Your task to perform on an android device: change notification settings in the gmail app Image 0: 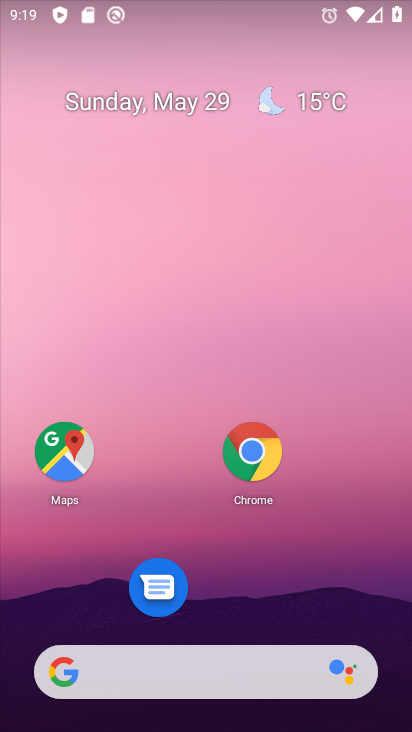
Step 0: drag from (108, 276) to (114, 58)
Your task to perform on an android device: change notification settings in the gmail app Image 1: 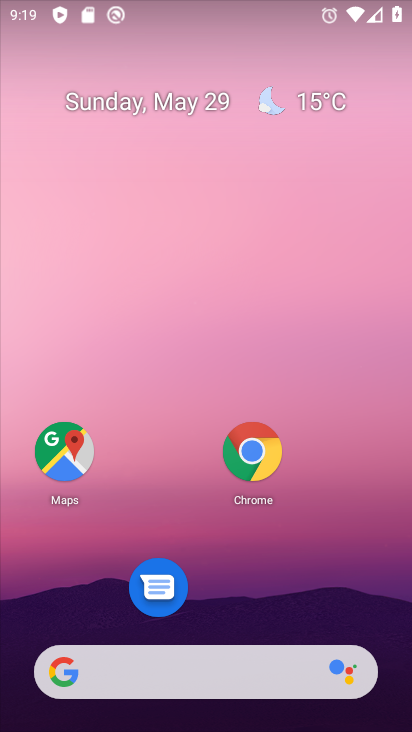
Step 1: drag from (235, 629) to (246, 8)
Your task to perform on an android device: change notification settings in the gmail app Image 2: 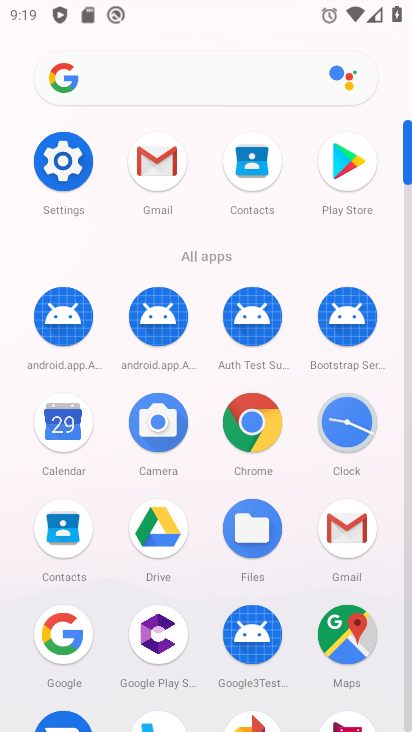
Step 2: click (155, 145)
Your task to perform on an android device: change notification settings in the gmail app Image 3: 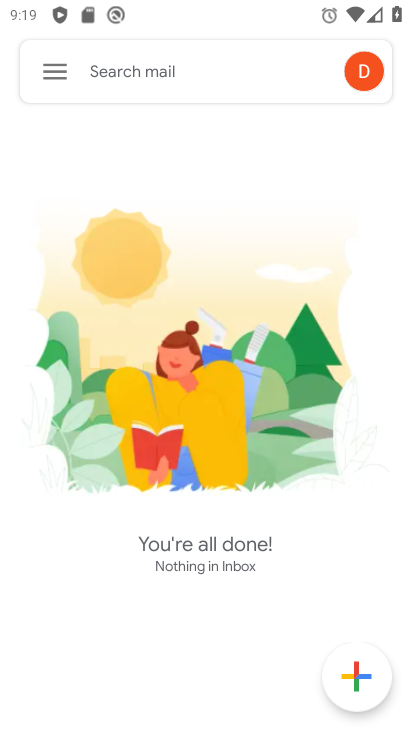
Step 3: click (46, 82)
Your task to perform on an android device: change notification settings in the gmail app Image 4: 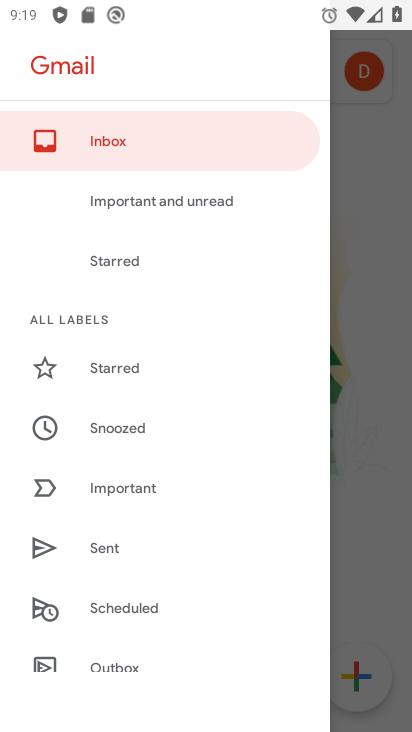
Step 4: drag from (147, 625) to (200, 148)
Your task to perform on an android device: change notification settings in the gmail app Image 5: 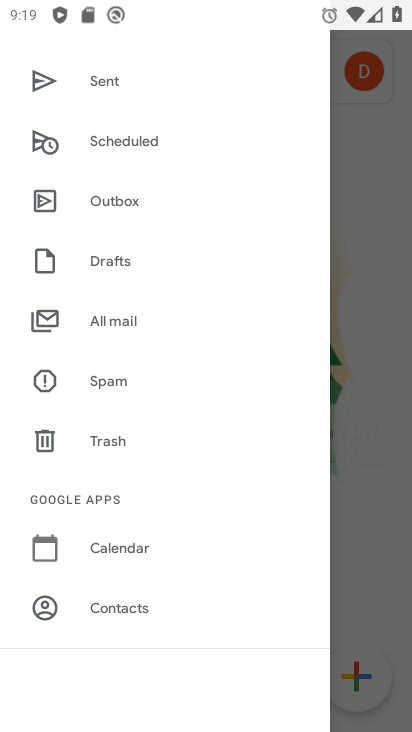
Step 5: drag from (95, 542) to (140, 63)
Your task to perform on an android device: change notification settings in the gmail app Image 6: 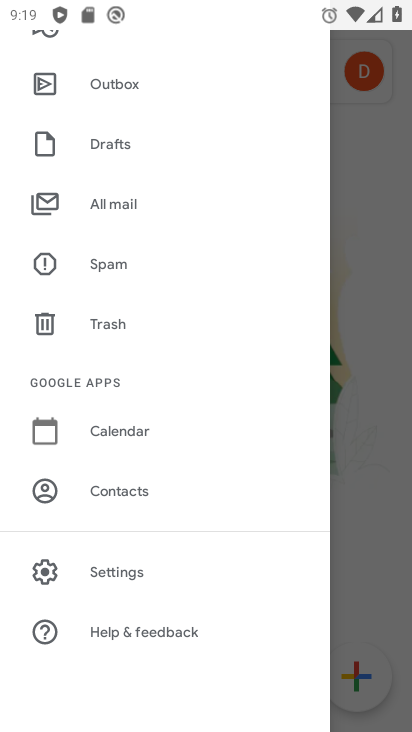
Step 6: click (107, 583)
Your task to perform on an android device: change notification settings in the gmail app Image 7: 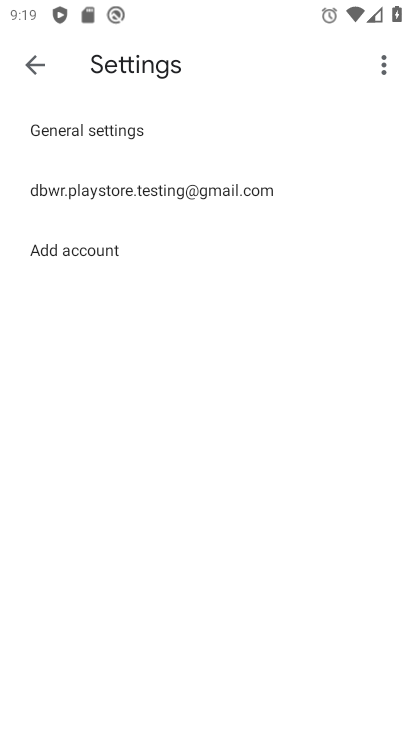
Step 7: click (184, 195)
Your task to perform on an android device: change notification settings in the gmail app Image 8: 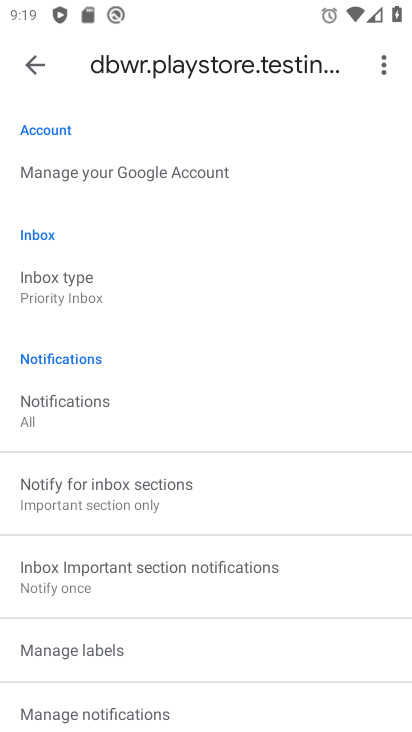
Step 8: drag from (158, 665) to (206, 260)
Your task to perform on an android device: change notification settings in the gmail app Image 9: 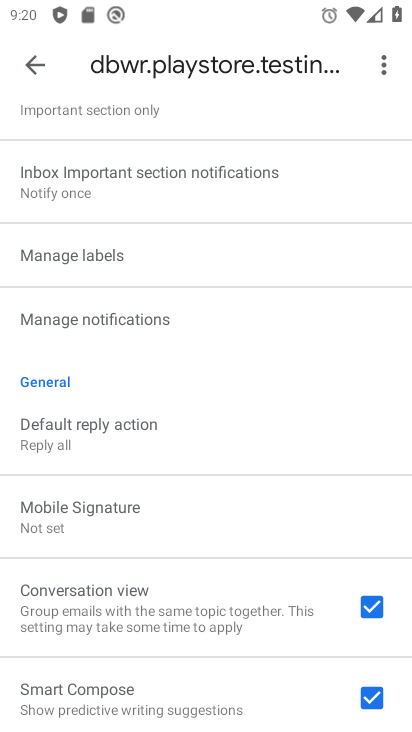
Step 9: click (210, 333)
Your task to perform on an android device: change notification settings in the gmail app Image 10: 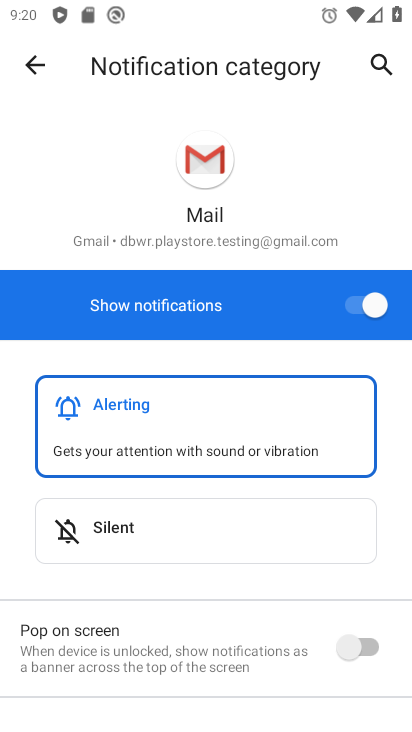
Step 10: drag from (213, 638) to (327, 123)
Your task to perform on an android device: change notification settings in the gmail app Image 11: 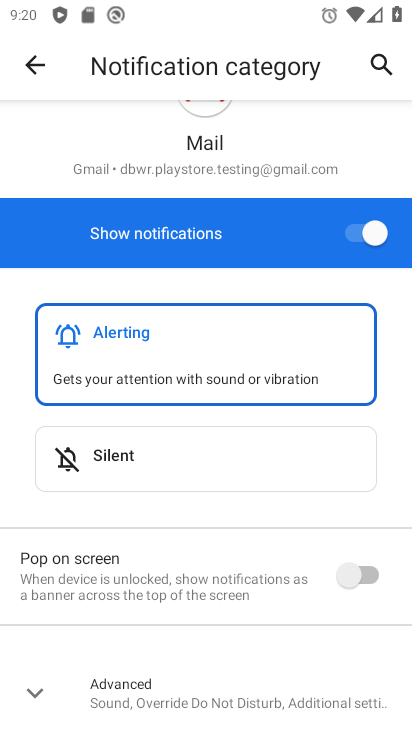
Step 11: click (375, 571)
Your task to perform on an android device: change notification settings in the gmail app Image 12: 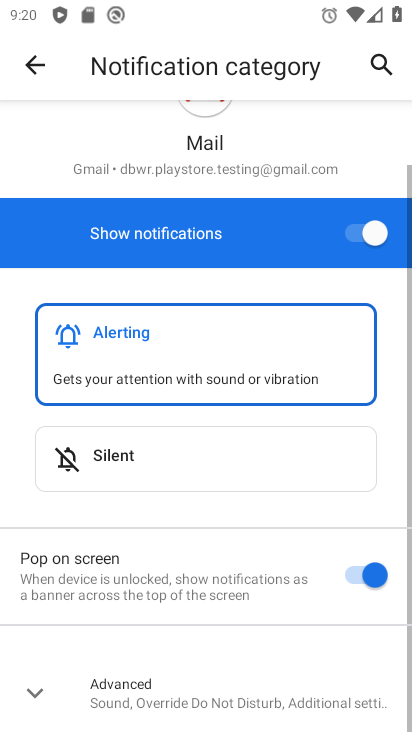
Step 12: task complete